Your task to perform on an android device: toggle show notifications on the lock screen Image 0: 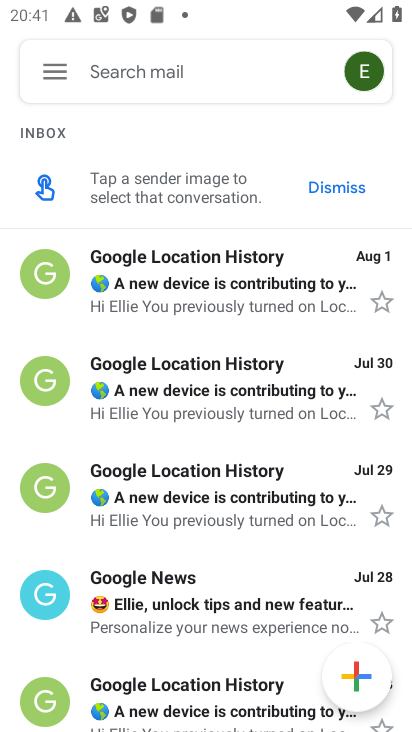
Step 0: press home button
Your task to perform on an android device: toggle show notifications on the lock screen Image 1: 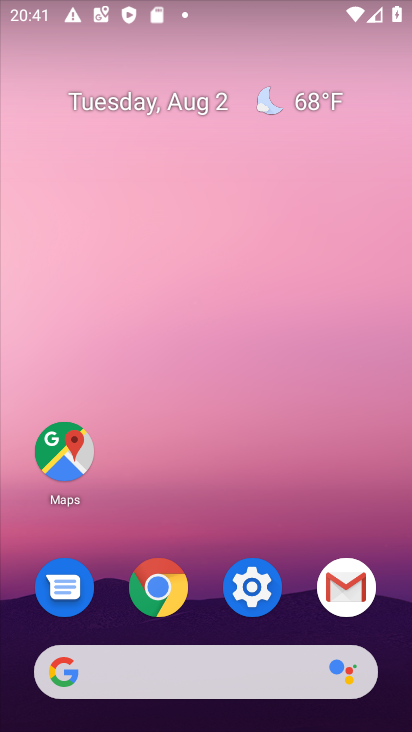
Step 1: click (260, 589)
Your task to perform on an android device: toggle show notifications on the lock screen Image 2: 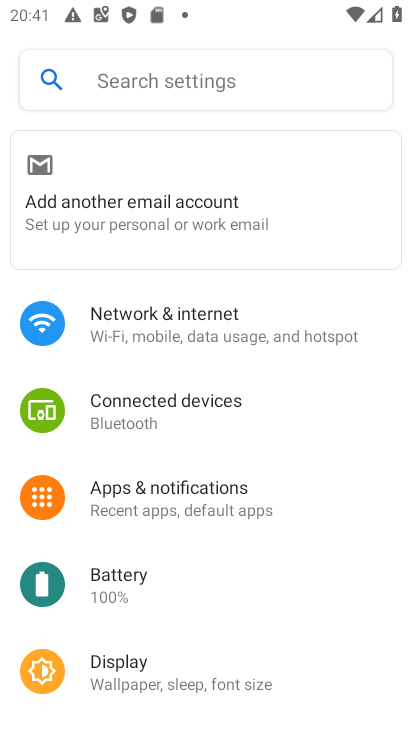
Step 2: click (176, 68)
Your task to perform on an android device: toggle show notifications on the lock screen Image 3: 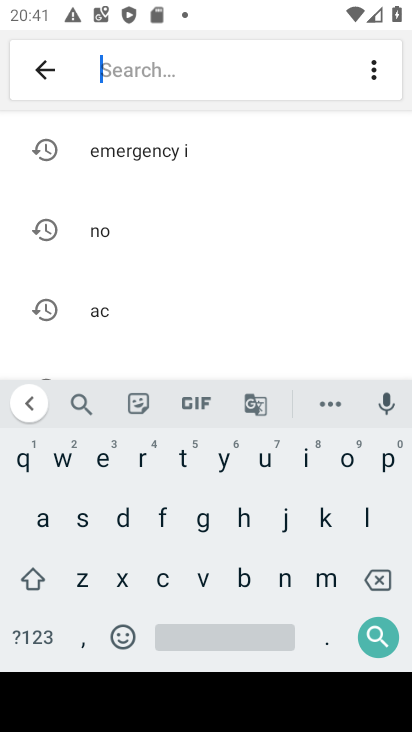
Step 3: click (110, 232)
Your task to perform on an android device: toggle show notifications on the lock screen Image 4: 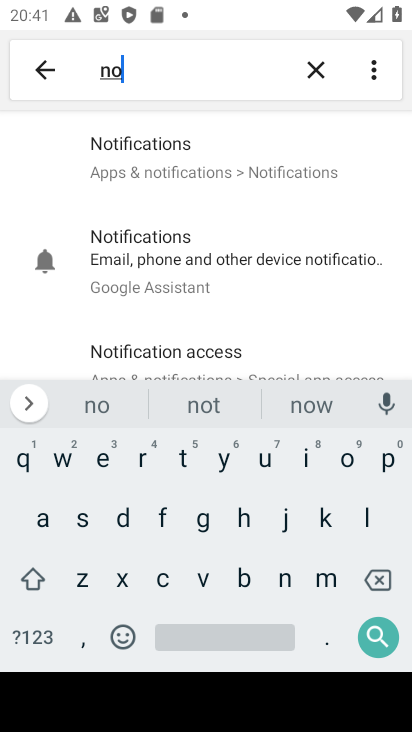
Step 4: click (216, 160)
Your task to perform on an android device: toggle show notifications on the lock screen Image 5: 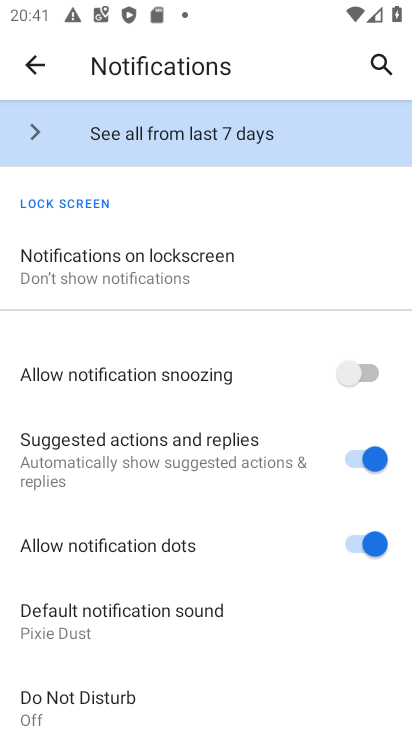
Step 5: click (146, 269)
Your task to perform on an android device: toggle show notifications on the lock screen Image 6: 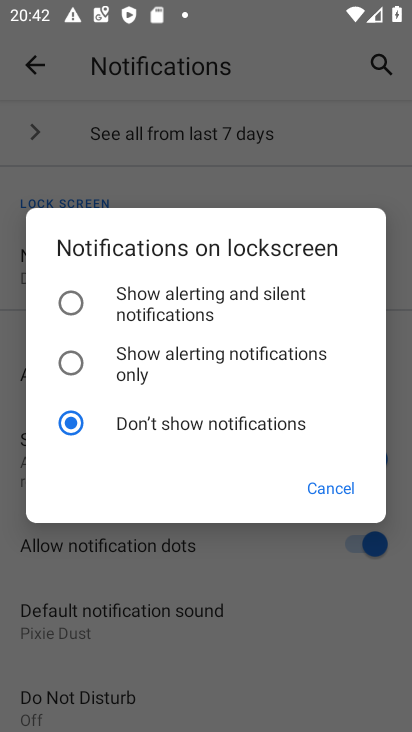
Step 6: task complete